Your task to perform on an android device: Look up the best rated gaming chairs on Target. Image 0: 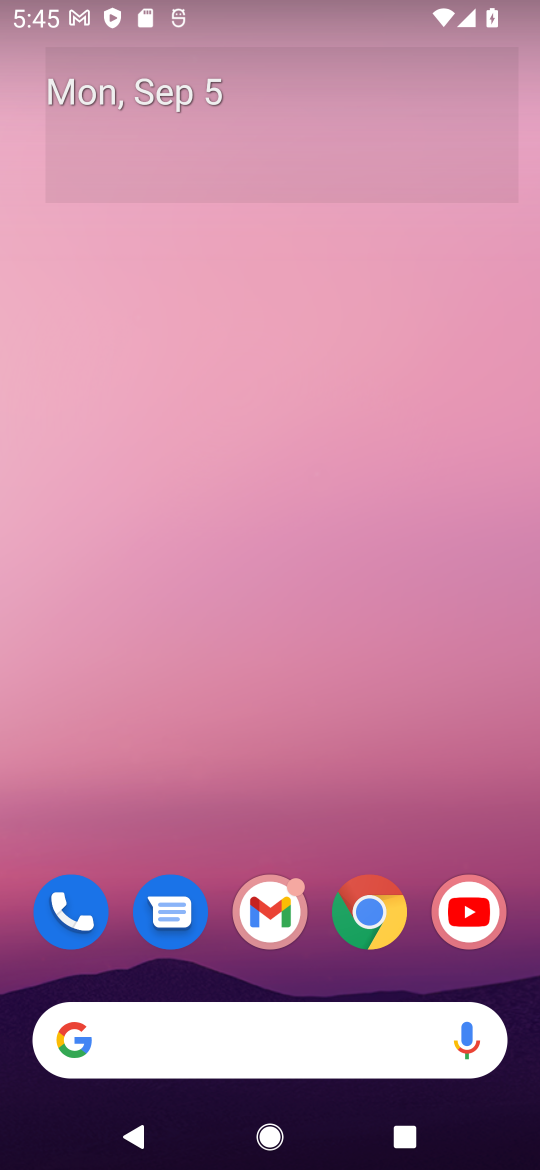
Step 0: click (359, 912)
Your task to perform on an android device: Look up the best rated gaming chairs on Target. Image 1: 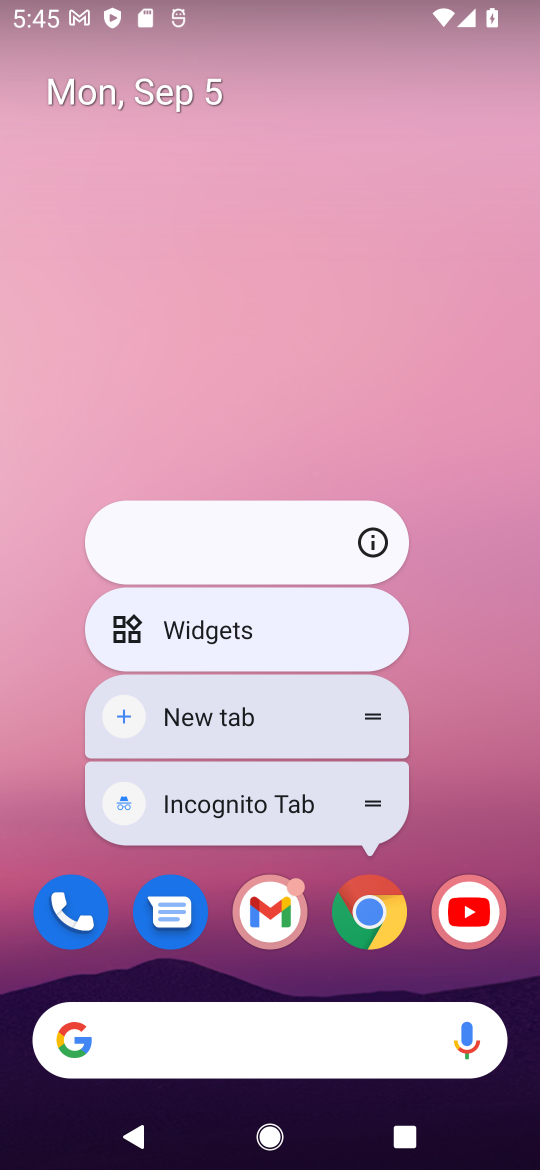
Step 1: click (378, 930)
Your task to perform on an android device: Look up the best rated gaming chairs on Target. Image 2: 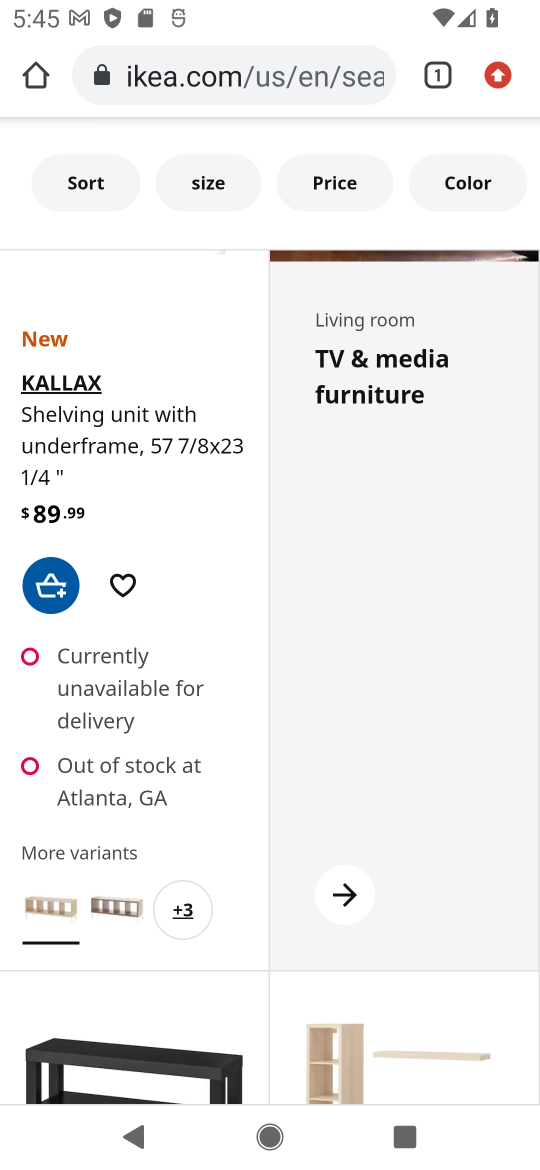
Step 2: click (252, 88)
Your task to perform on an android device: Look up the best rated gaming chairs on Target. Image 3: 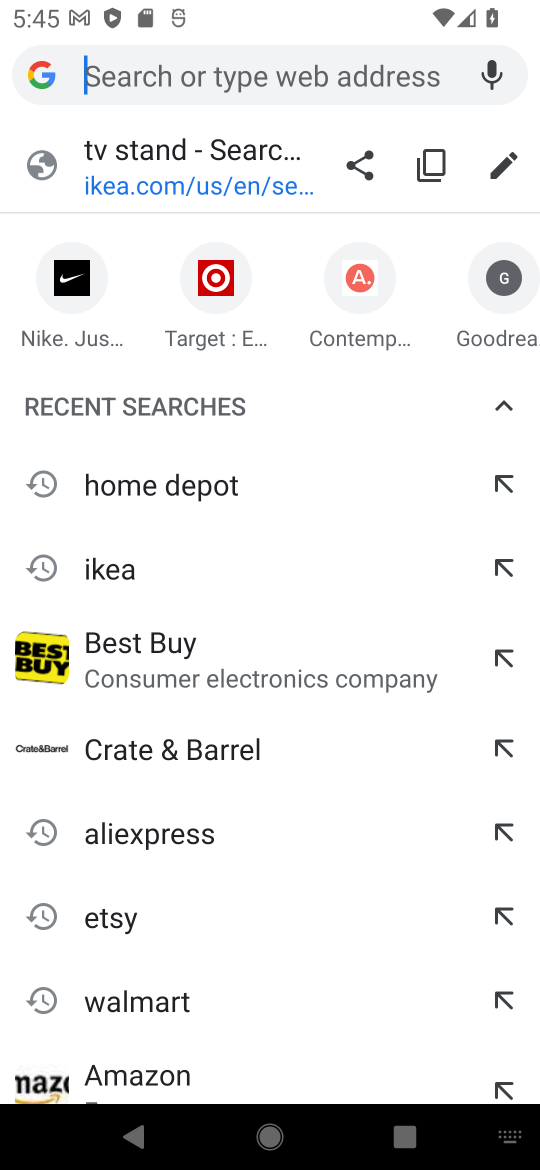
Step 3: type "target"
Your task to perform on an android device: Look up the best rated gaming chairs on Target. Image 4: 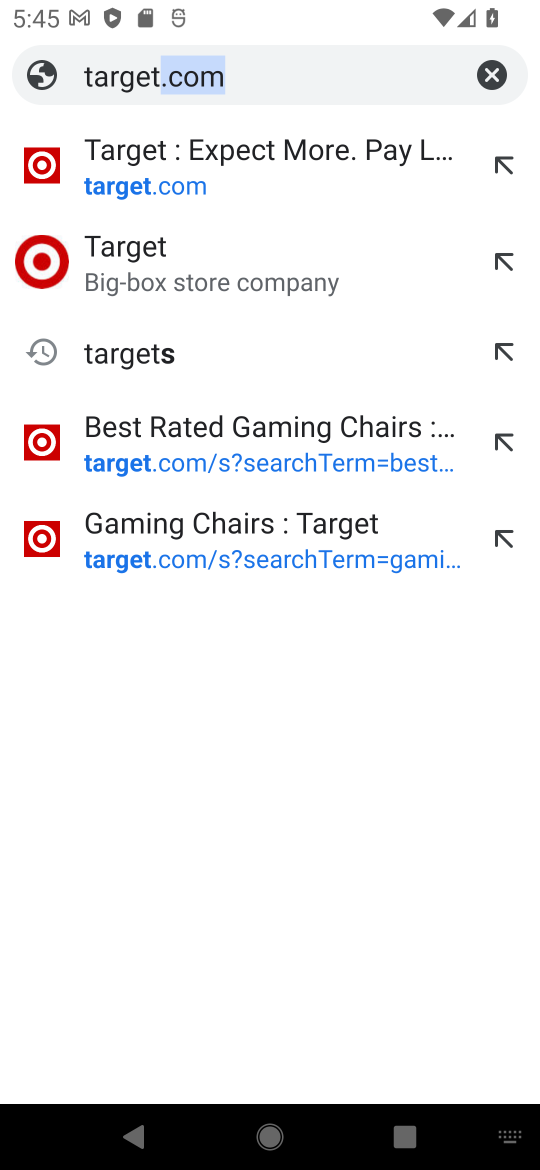
Step 4: press enter
Your task to perform on an android device: Look up the best rated gaming chairs on Target. Image 5: 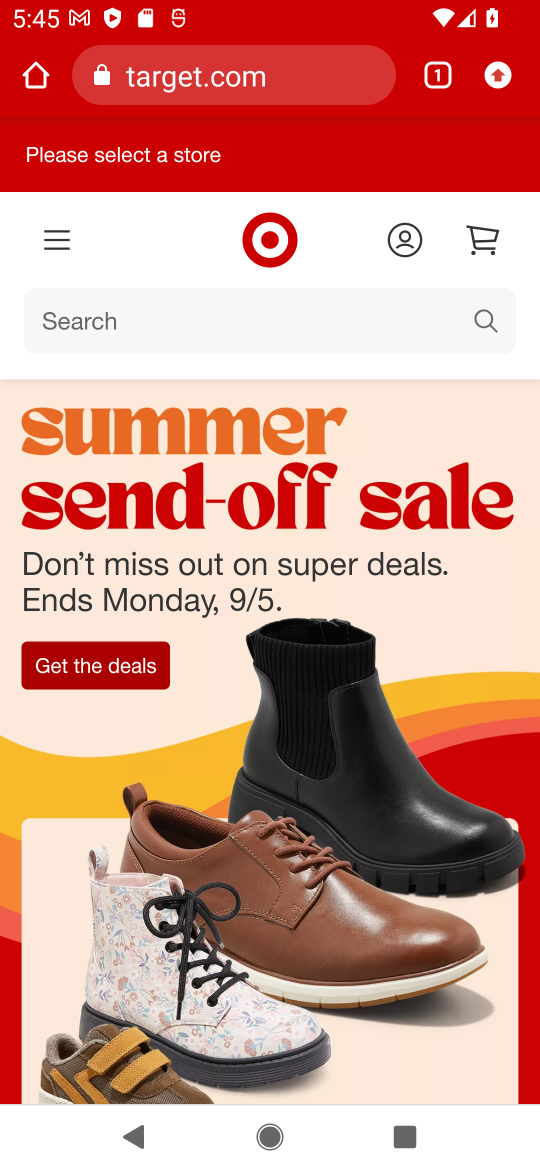
Step 5: click (186, 313)
Your task to perform on an android device: Look up the best rated gaming chairs on Target. Image 6: 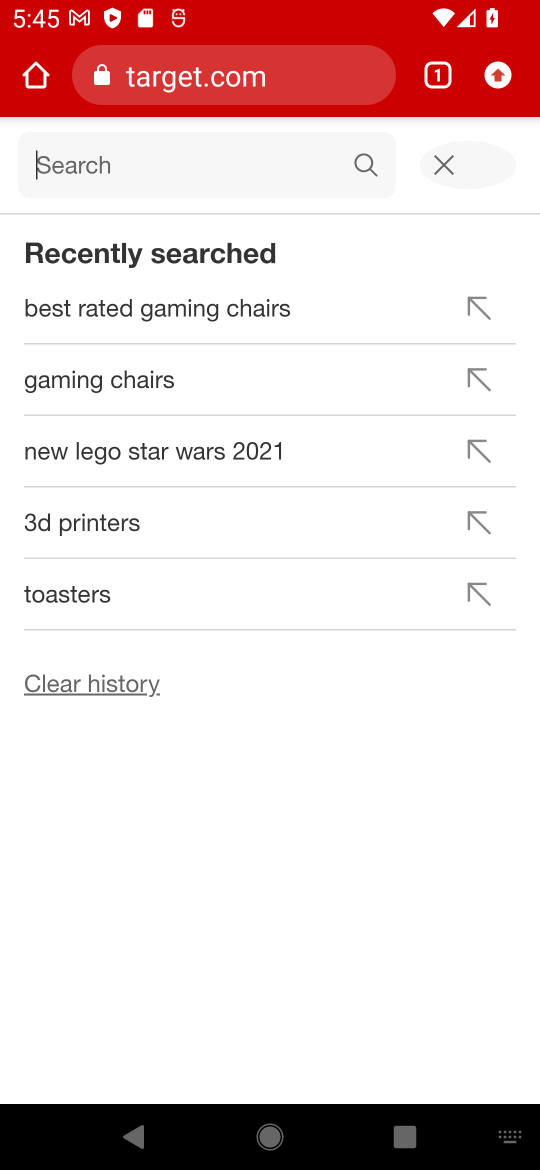
Step 6: type "best rated gaming chairs"
Your task to perform on an android device: Look up the best rated gaming chairs on Target. Image 7: 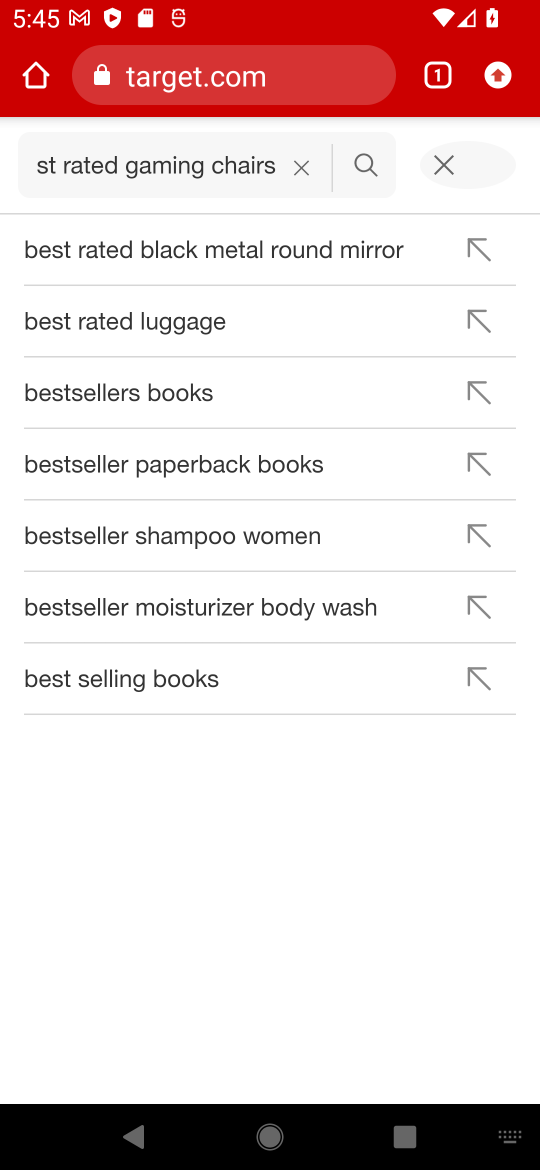
Step 7: press enter
Your task to perform on an android device: Look up the best rated gaming chairs on Target. Image 8: 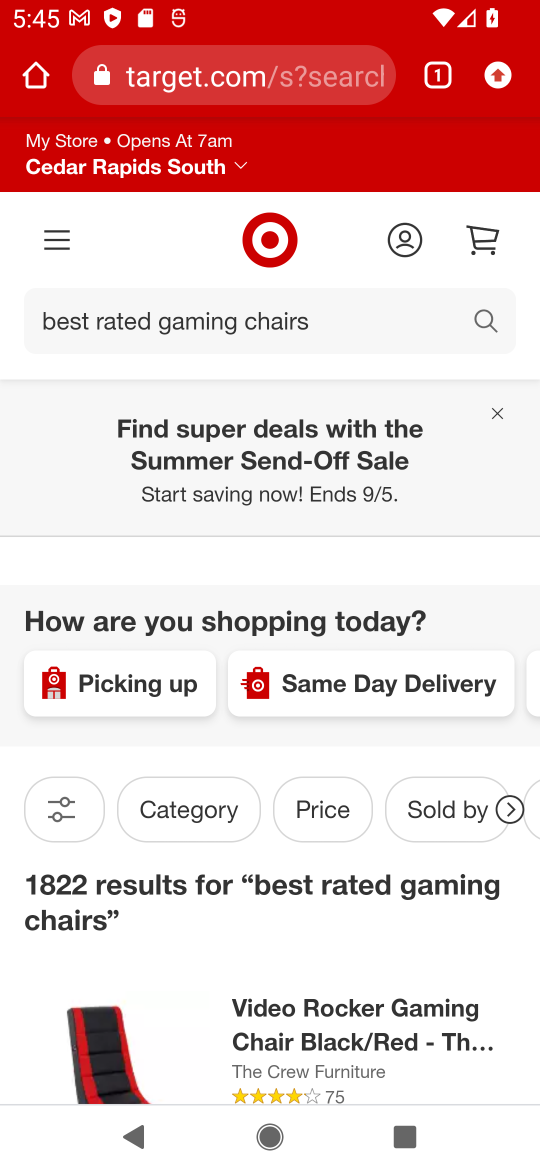
Step 8: click (52, 810)
Your task to perform on an android device: Look up the best rated gaming chairs on Target. Image 9: 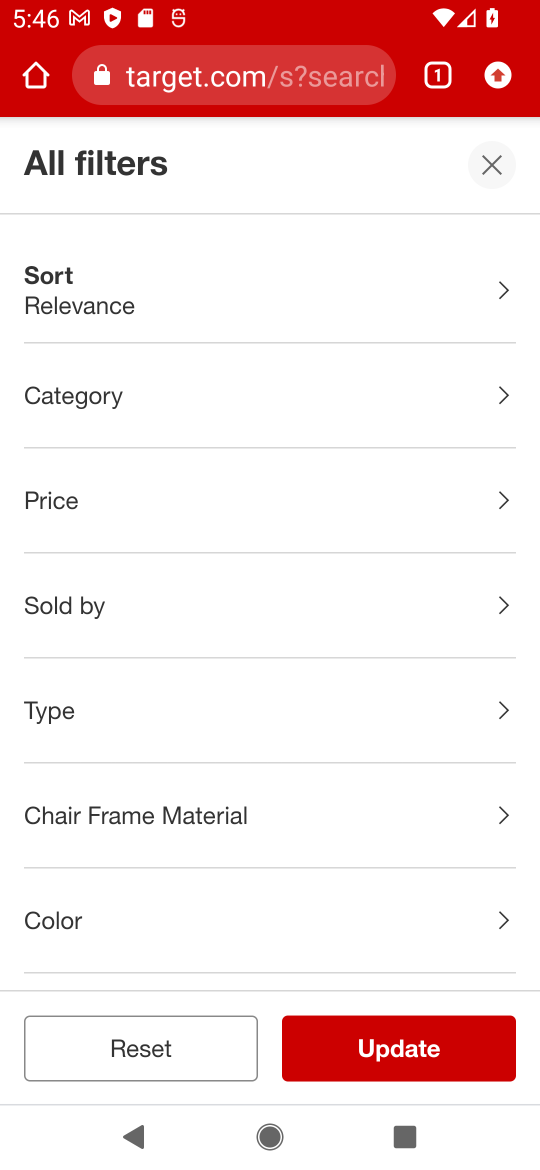
Step 9: click (211, 326)
Your task to perform on an android device: Look up the best rated gaming chairs on Target. Image 10: 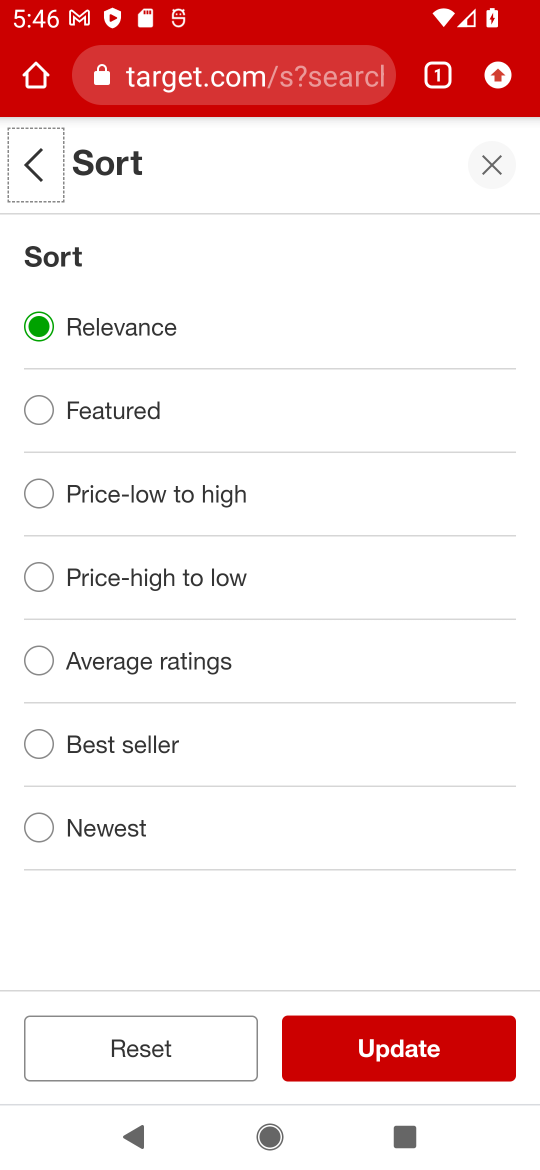
Step 10: click (206, 673)
Your task to perform on an android device: Look up the best rated gaming chairs on Target. Image 11: 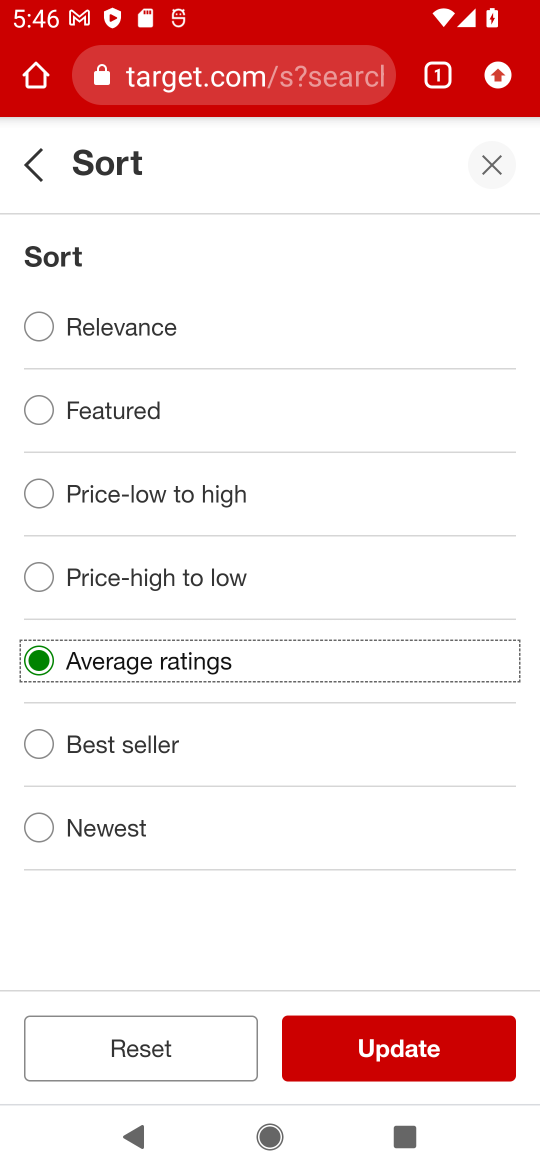
Step 11: click (421, 1056)
Your task to perform on an android device: Look up the best rated gaming chairs on Target. Image 12: 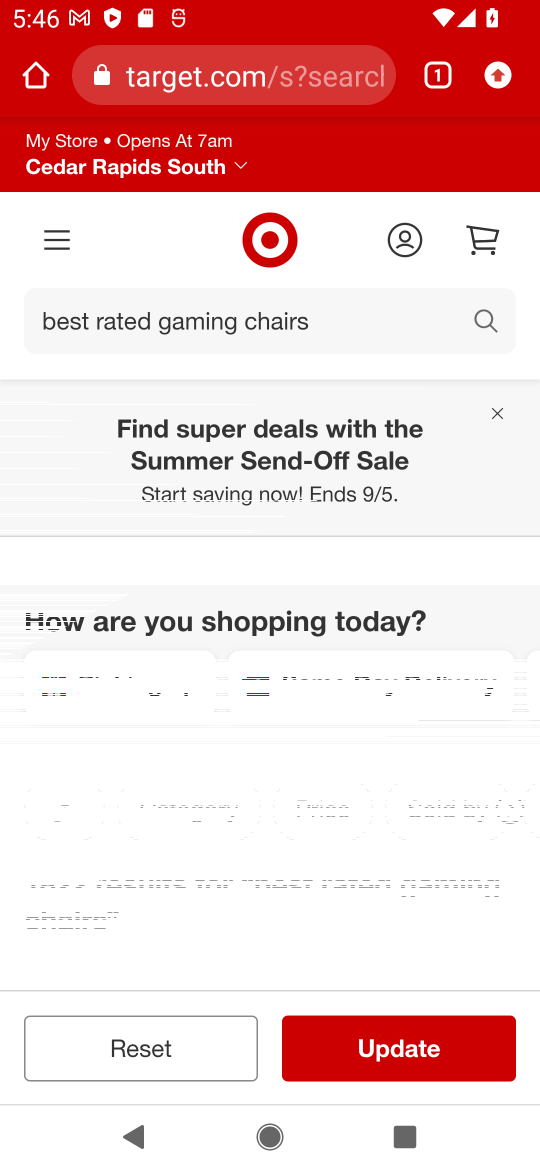
Step 12: click (335, 1043)
Your task to perform on an android device: Look up the best rated gaming chairs on Target. Image 13: 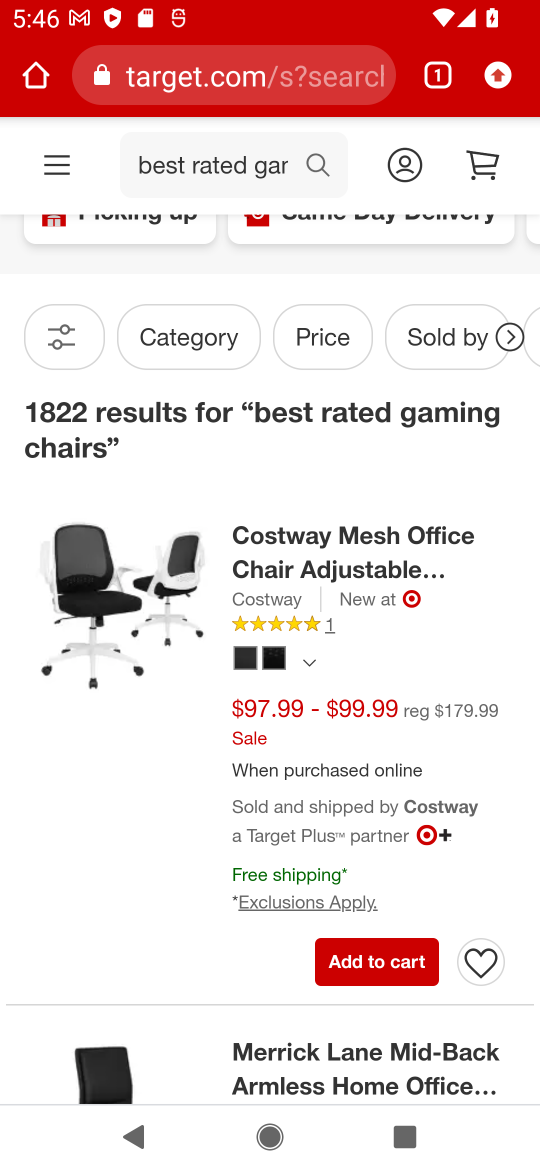
Step 13: task complete